Your task to perform on an android device: turn notification dots off Image 0: 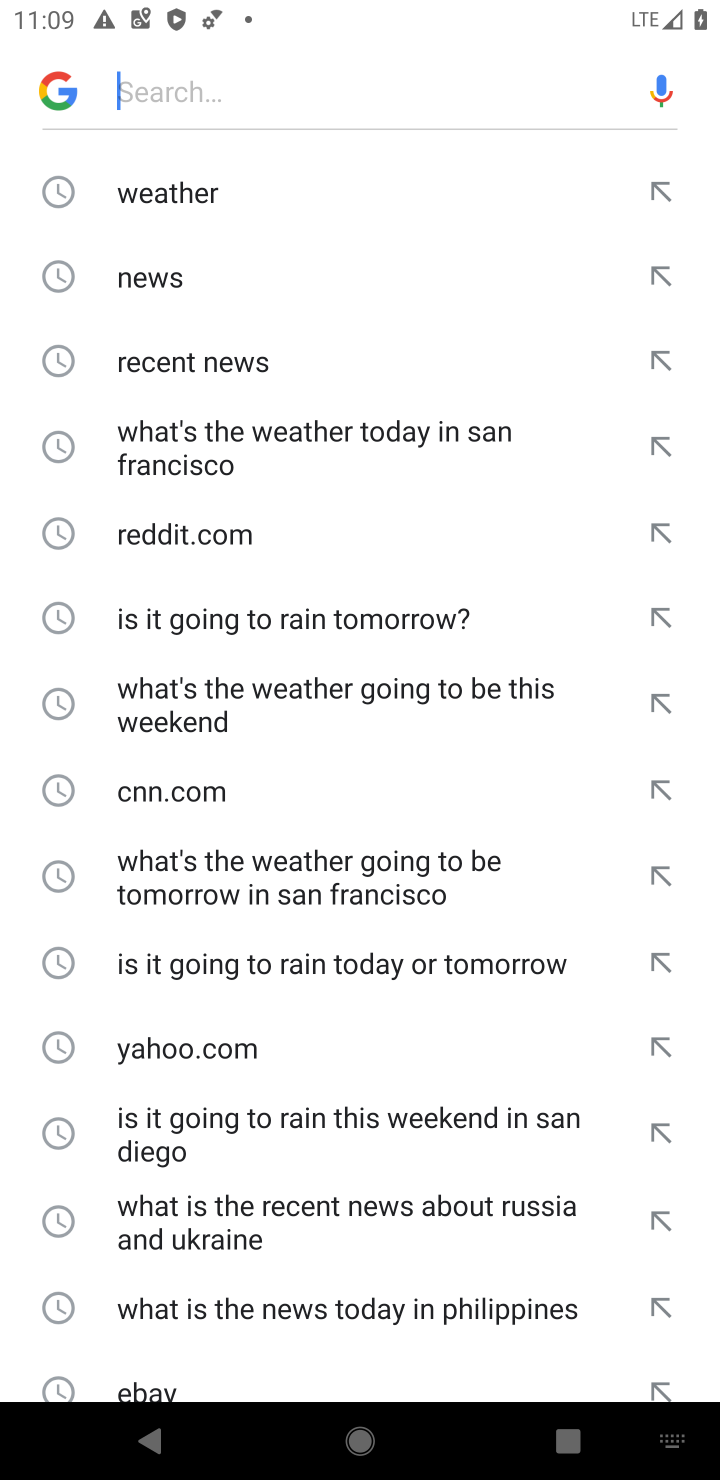
Step 0: press home button
Your task to perform on an android device: turn notification dots off Image 1: 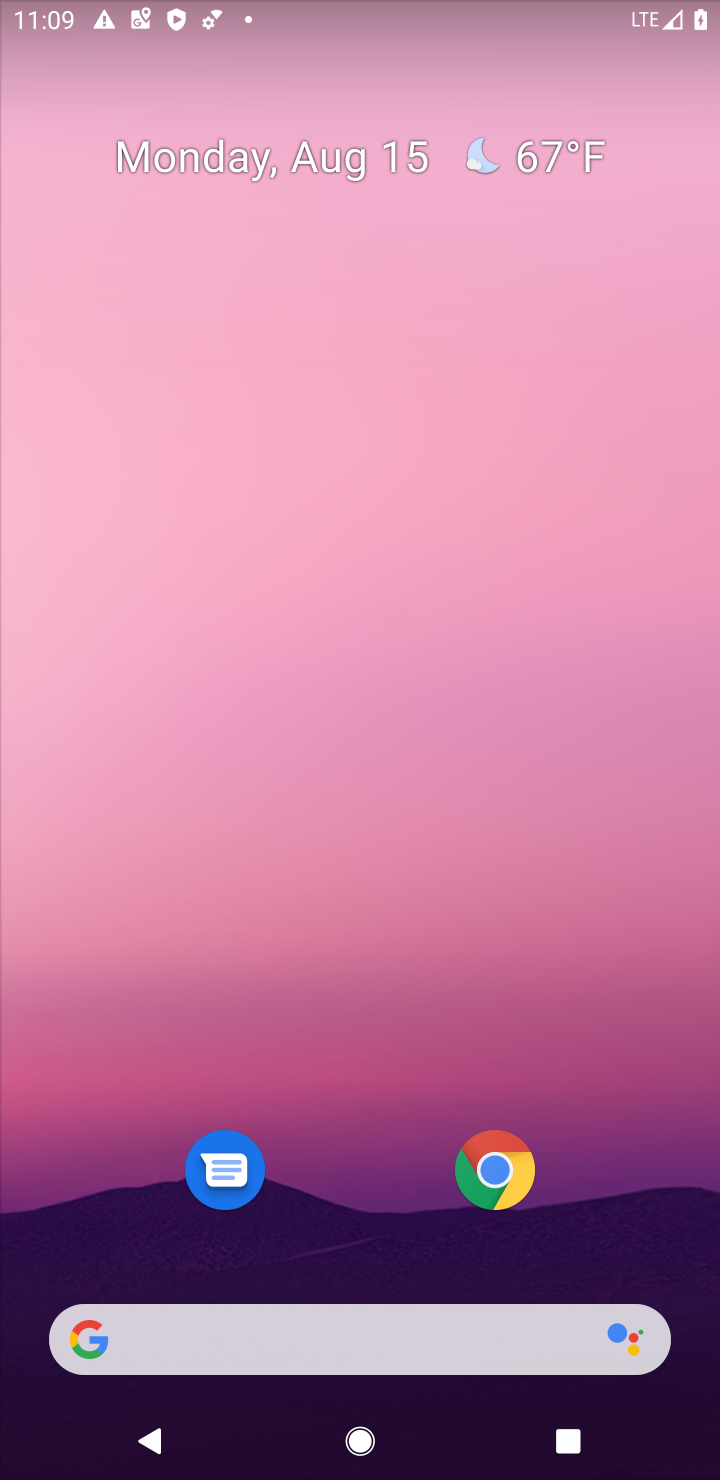
Step 1: drag from (375, 1256) to (417, 48)
Your task to perform on an android device: turn notification dots off Image 2: 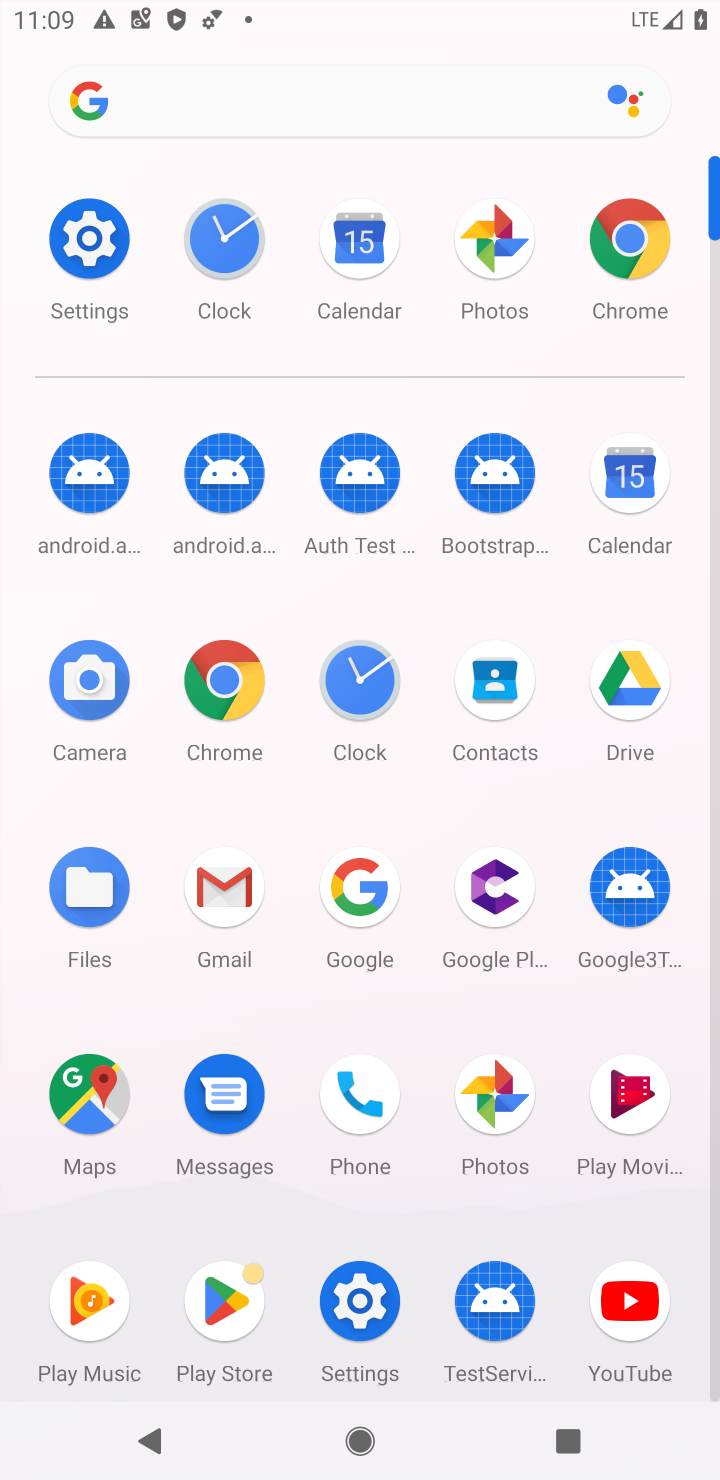
Step 2: click (81, 226)
Your task to perform on an android device: turn notification dots off Image 3: 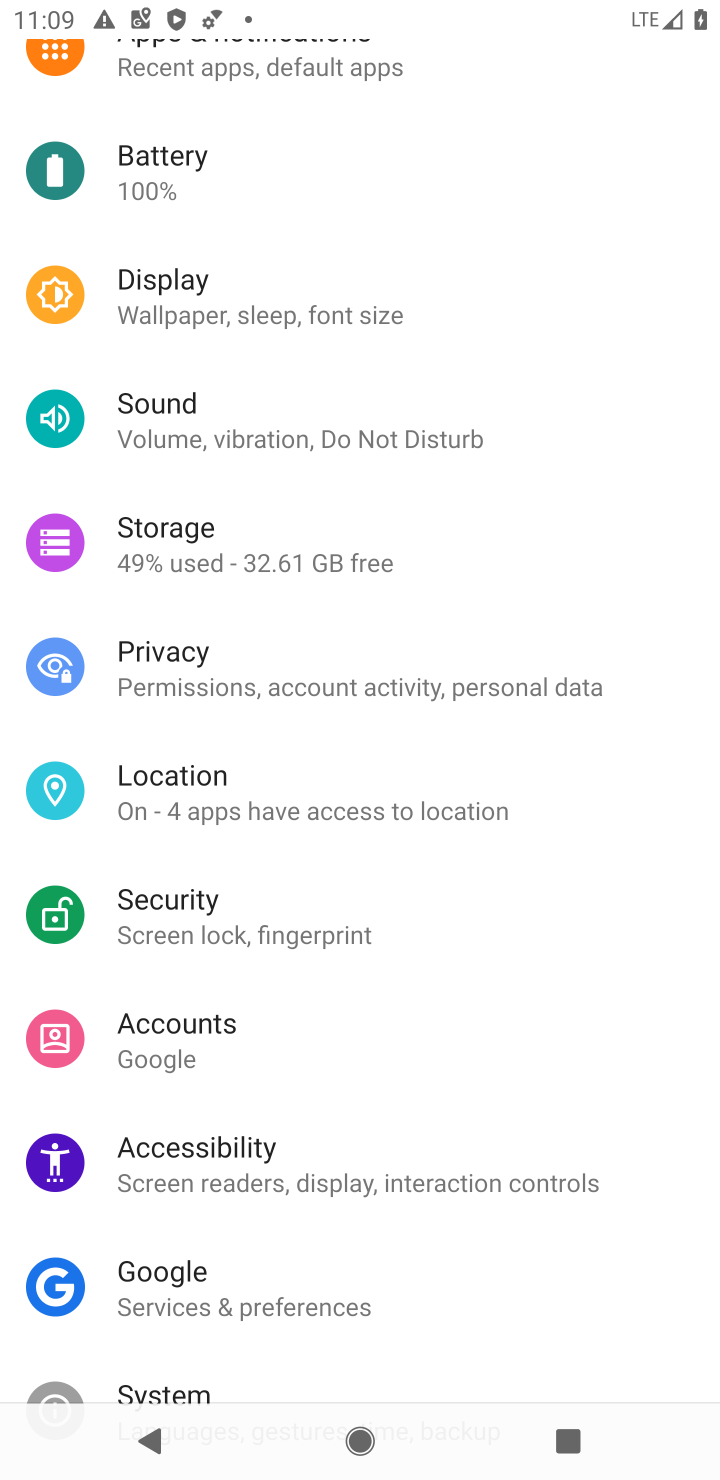
Step 3: click (258, 59)
Your task to perform on an android device: turn notification dots off Image 4: 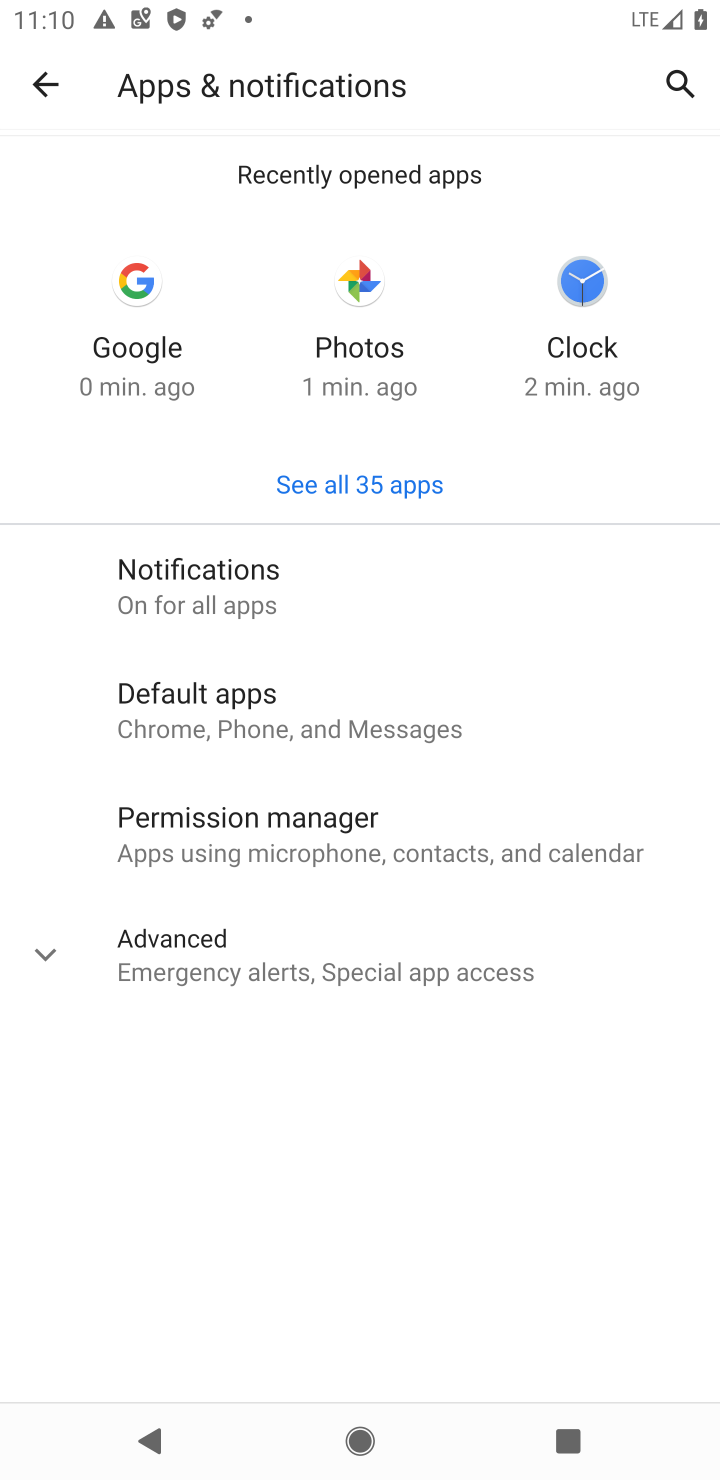
Step 4: click (284, 567)
Your task to perform on an android device: turn notification dots off Image 5: 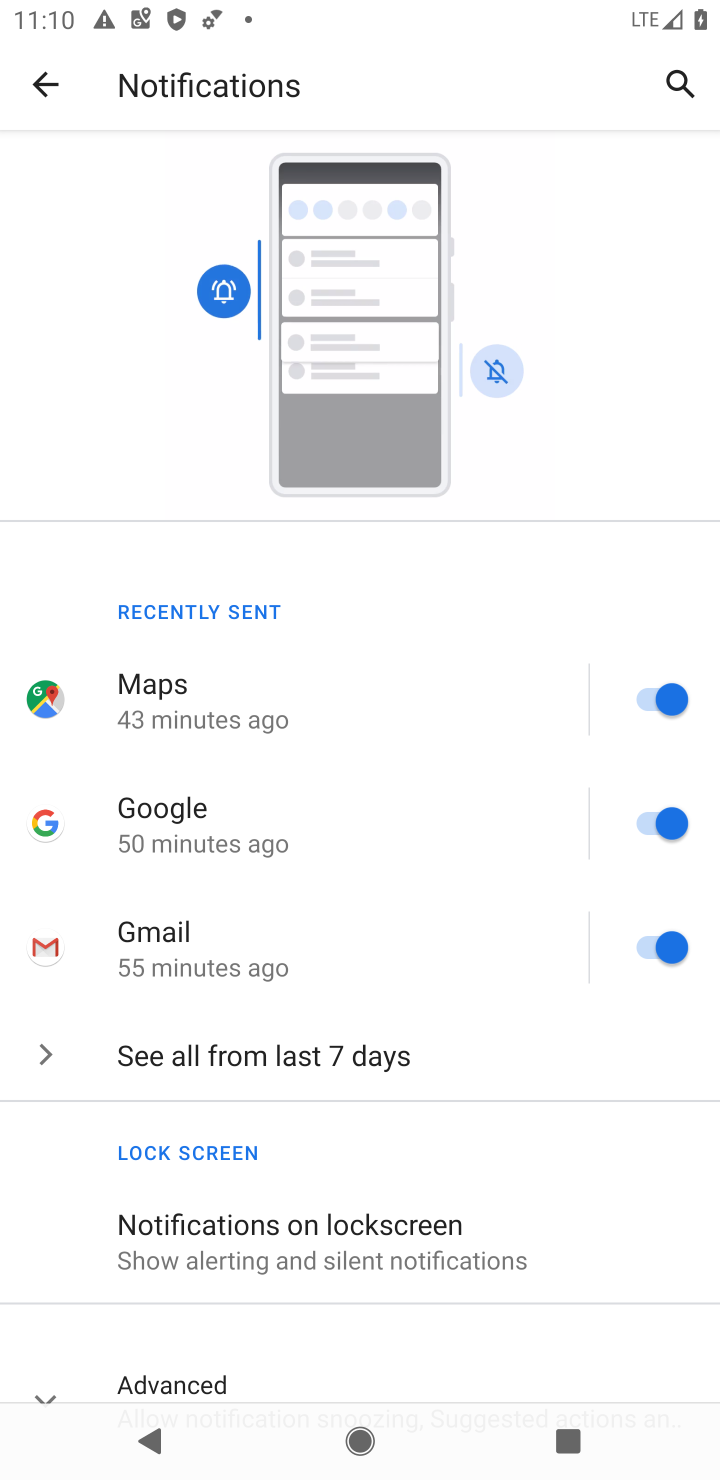
Step 5: drag from (406, 599) to (414, 181)
Your task to perform on an android device: turn notification dots off Image 6: 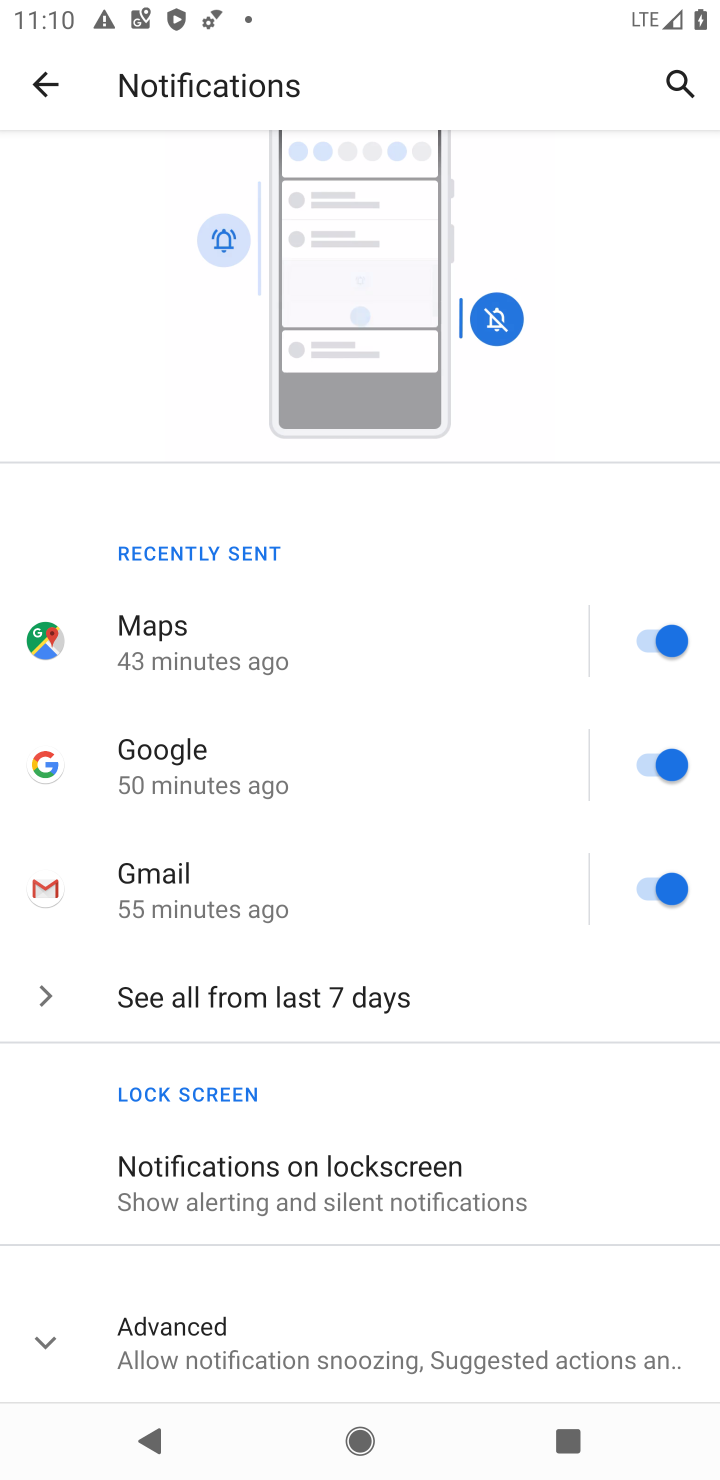
Step 6: click (44, 1334)
Your task to perform on an android device: turn notification dots off Image 7: 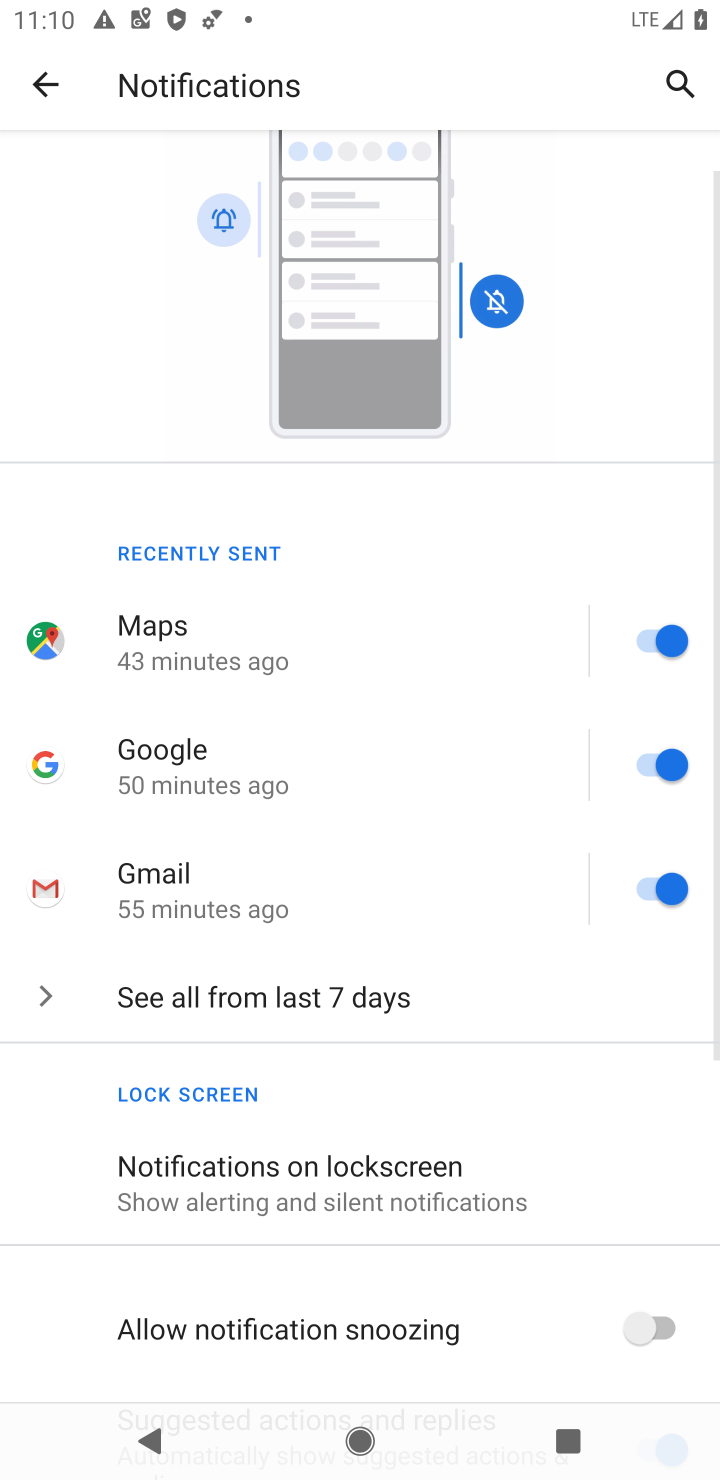
Step 7: drag from (327, 1283) to (467, 308)
Your task to perform on an android device: turn notification dots off Image 8: 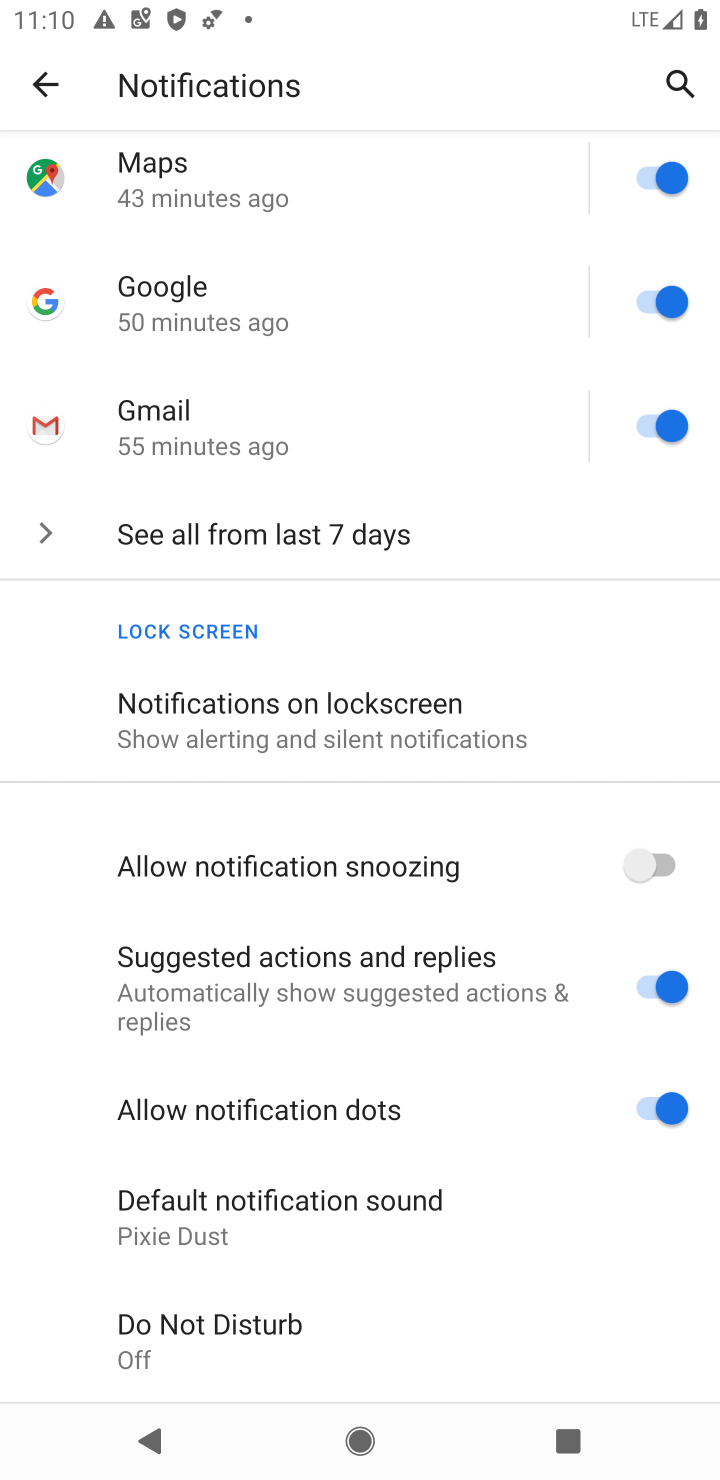
Step 8: click (668, 1108)
Your task to perform on an android device: turn notification dots off Image 9: 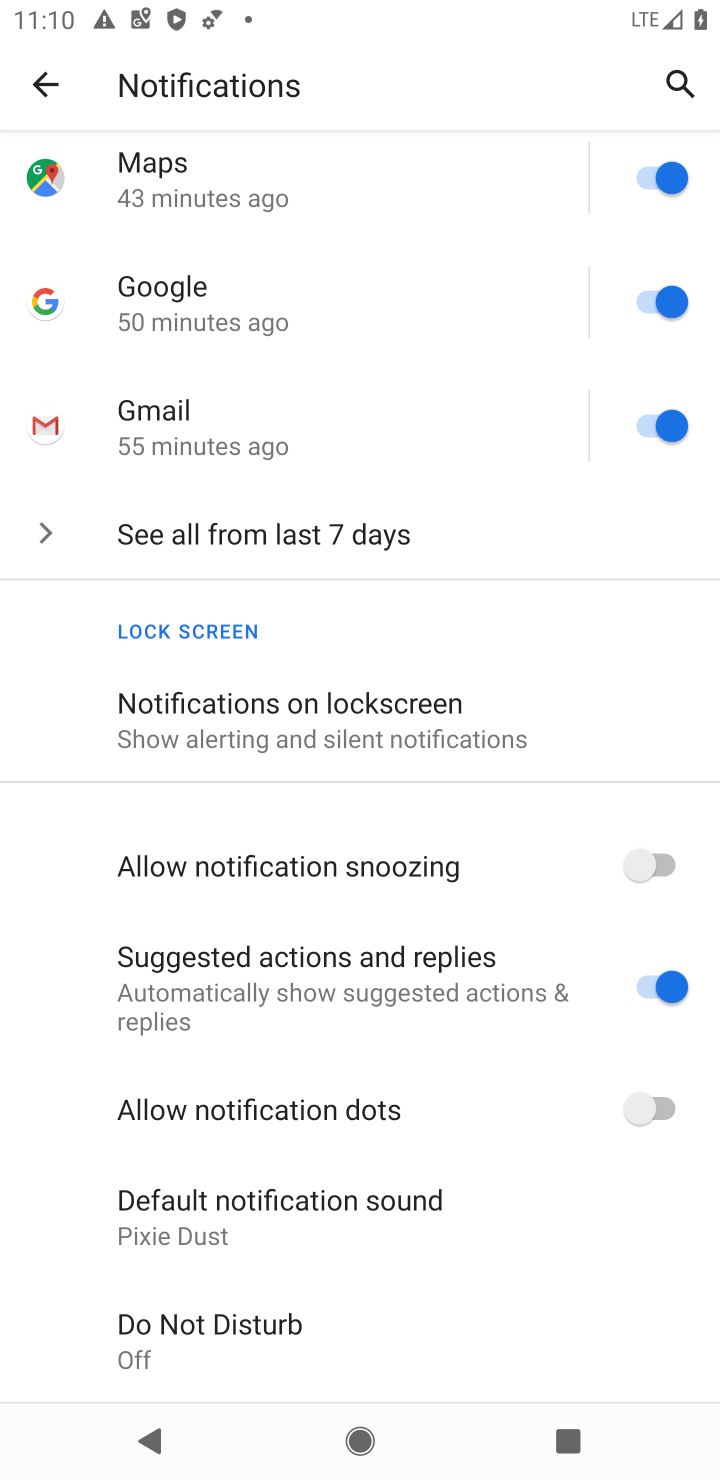
Step 9: task complete